Your task to perform on an android device: Go to network settings Image 0: 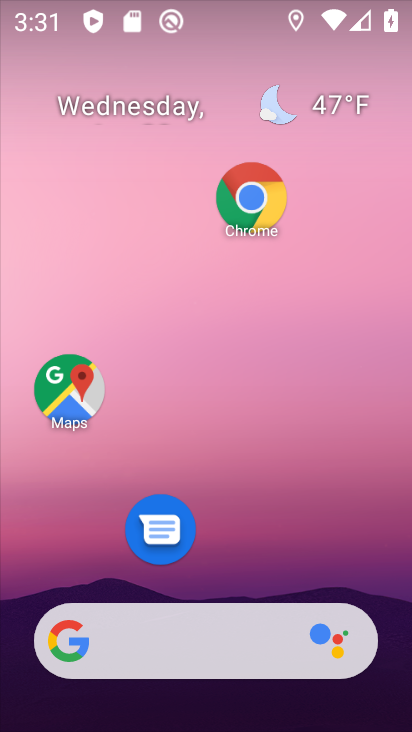
Step 0: drag from (253, 564) to (228, 106)
Your task to perform on an android device: Go to network settings Image 1: 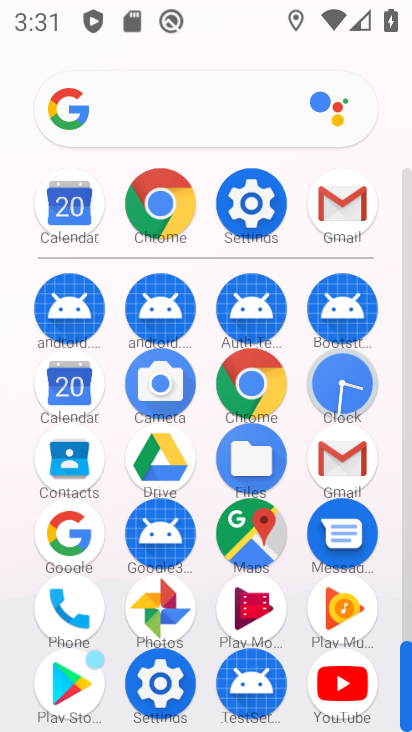
Step 1: click (254, 210)
Your task to perform on an android device: Go to network settings Image 2: 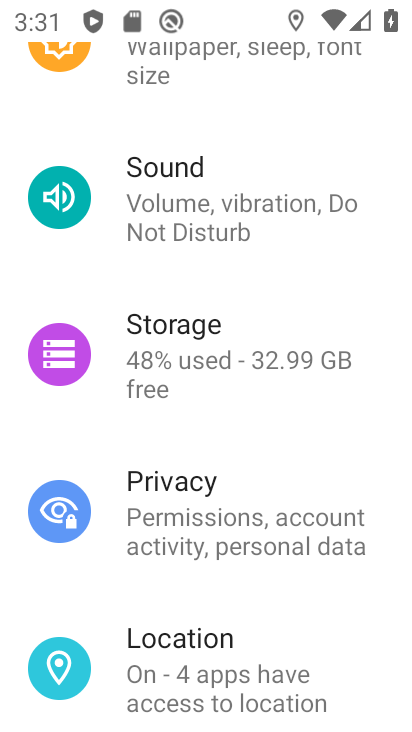
Step 2: drag from (246, 258) to (153, 610)
Your task to perform on an android device: Go to network settings Image 3: 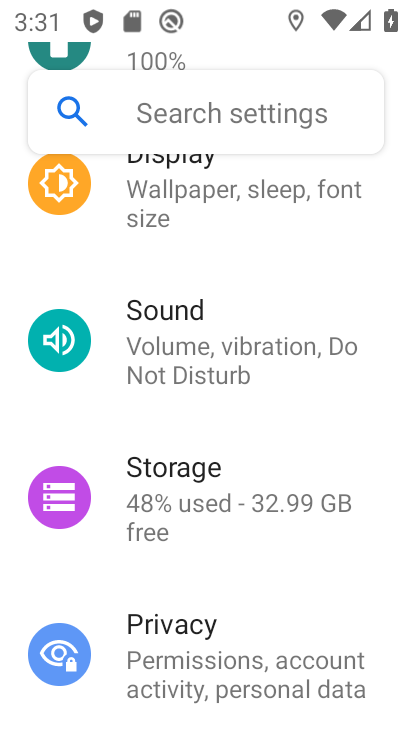
Step 3: drag from (224, 232) to (234, 703)
Your task to perform on an android device: Go to network settings Image 4: 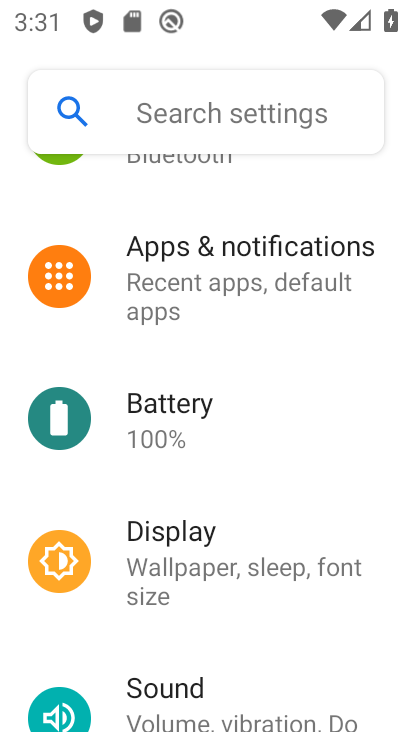
Step 4: drag from (261, 363) to (244, 683)
Your task to perform on an android device: Go to network settings Image 5: 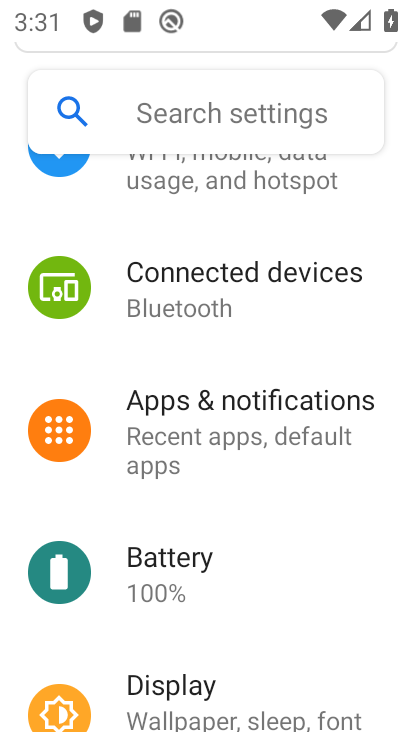
Step 5: drag from (239, 311) to (244, 689)
Your task to perform on an android device: Go to network settings Image 6: 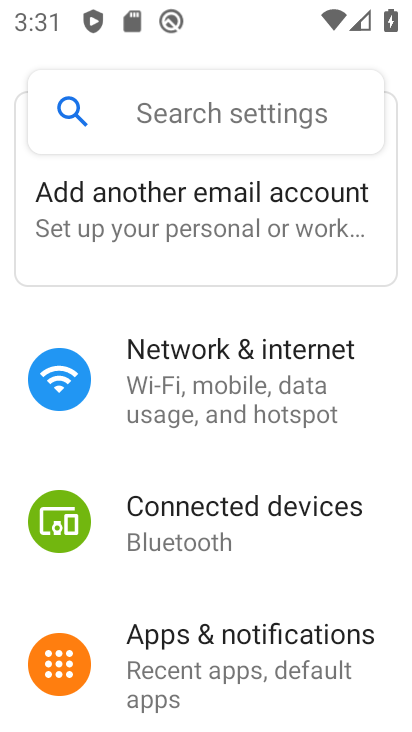
Step 6: click (212, 404)
Your task to perform on an android device: Go to network settings Image 7: 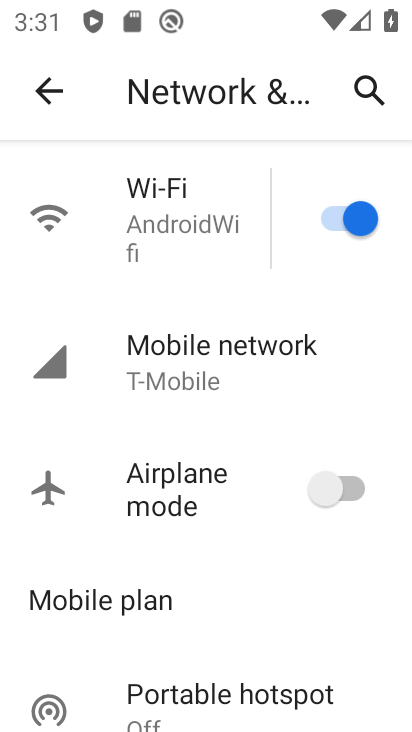
Step 7: task complete